Your task to perform on an android device: View the shopping cart on target.com. Image 0: 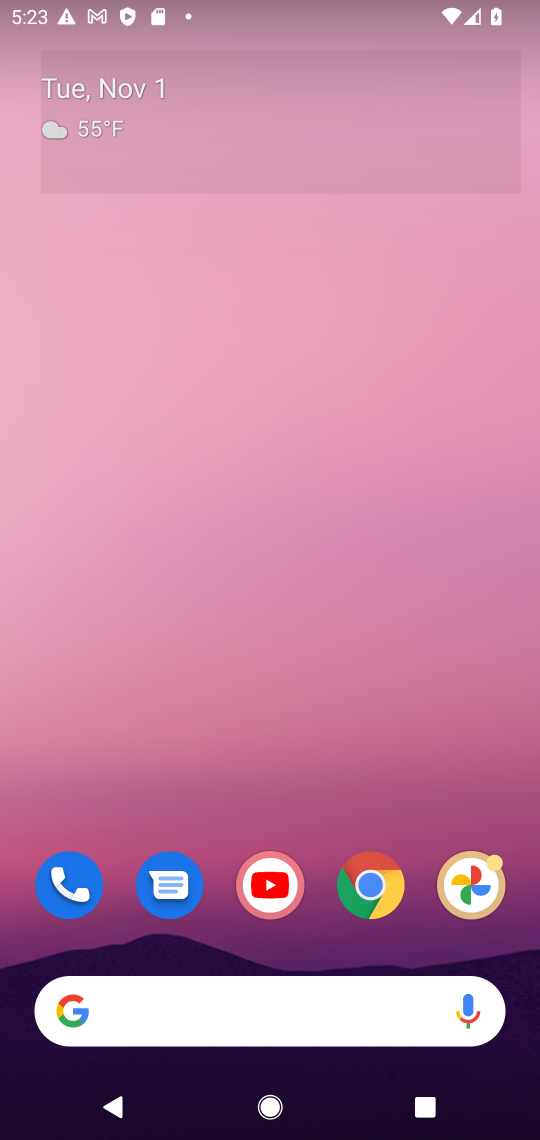
Step 0: click (368, 887)
Your task to perform on an android device: View the shopping cart on target.com. Image 1: 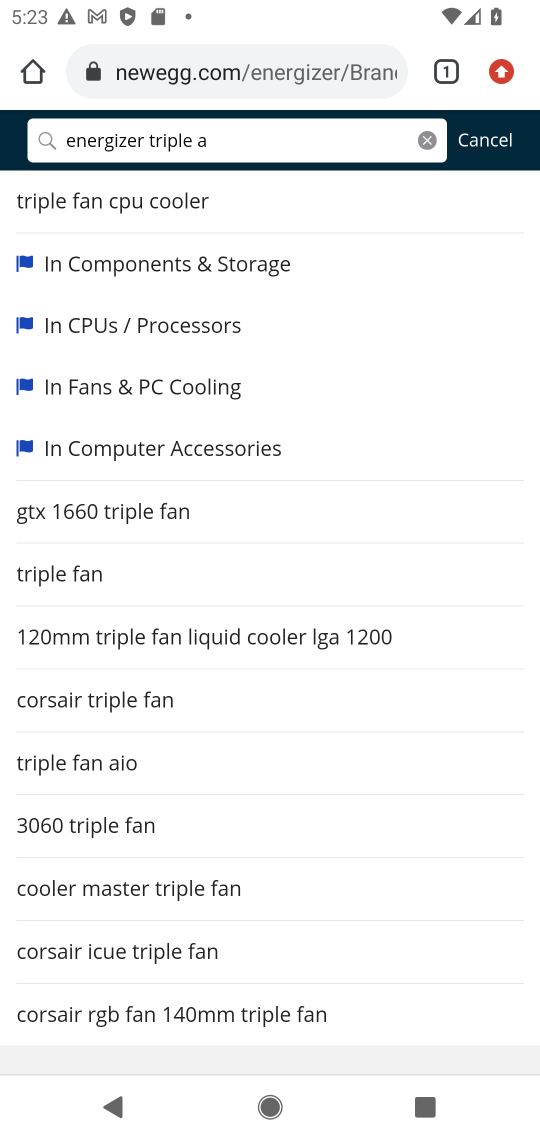
Step 1: click (234, 50)
Your task to perform on an android device: View the shopping cart on target.com. Image 2: 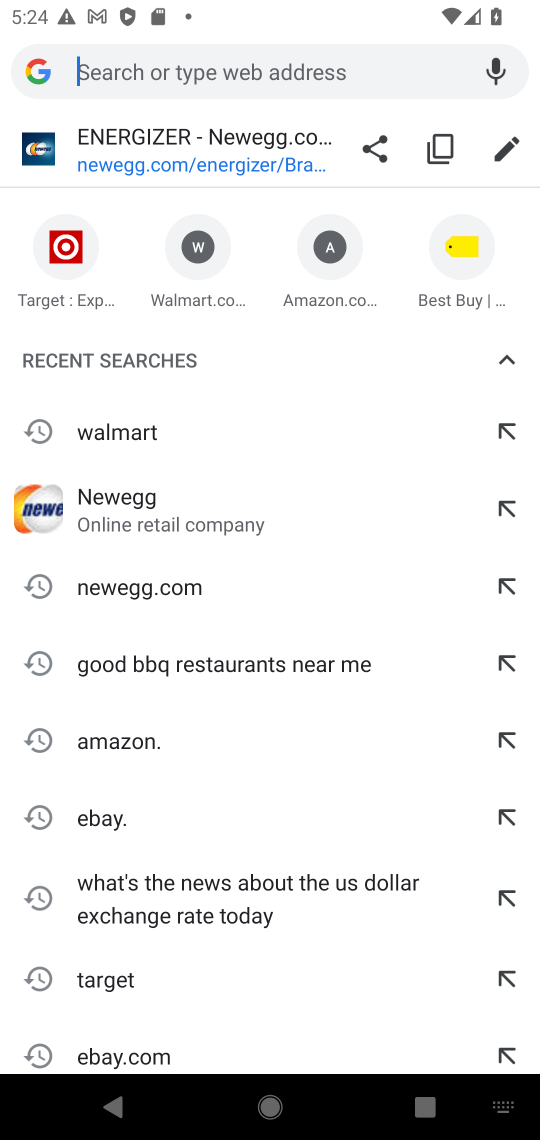
Step 2: type "target.com"
Your task to perform on an android device: View the shopping cart on target.com. Image 3: 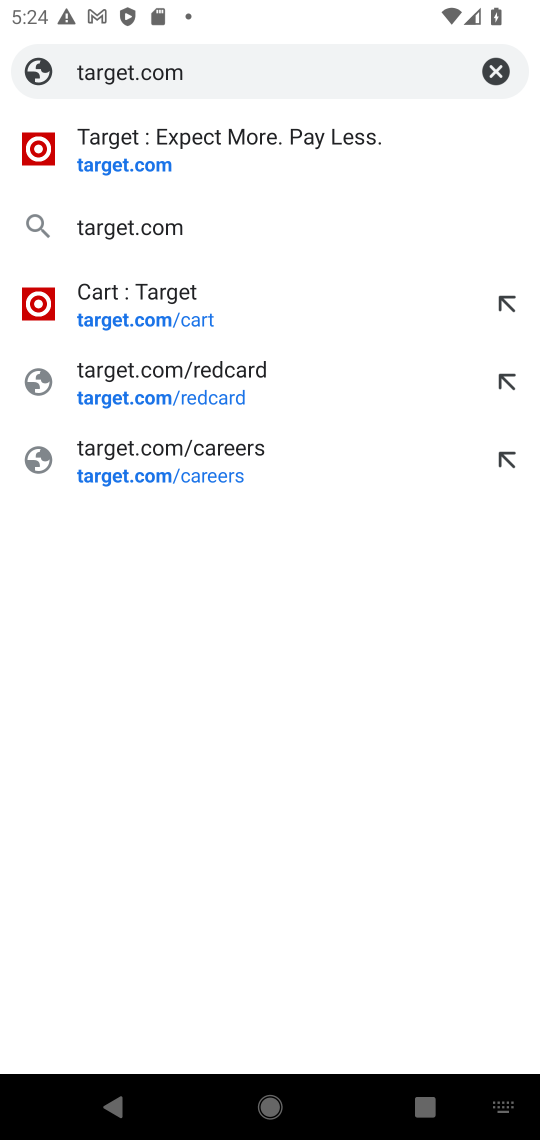
Step 3: click (115, 147)
Your task to perform on an android device: View the shopping cart on target.com. Image 4: 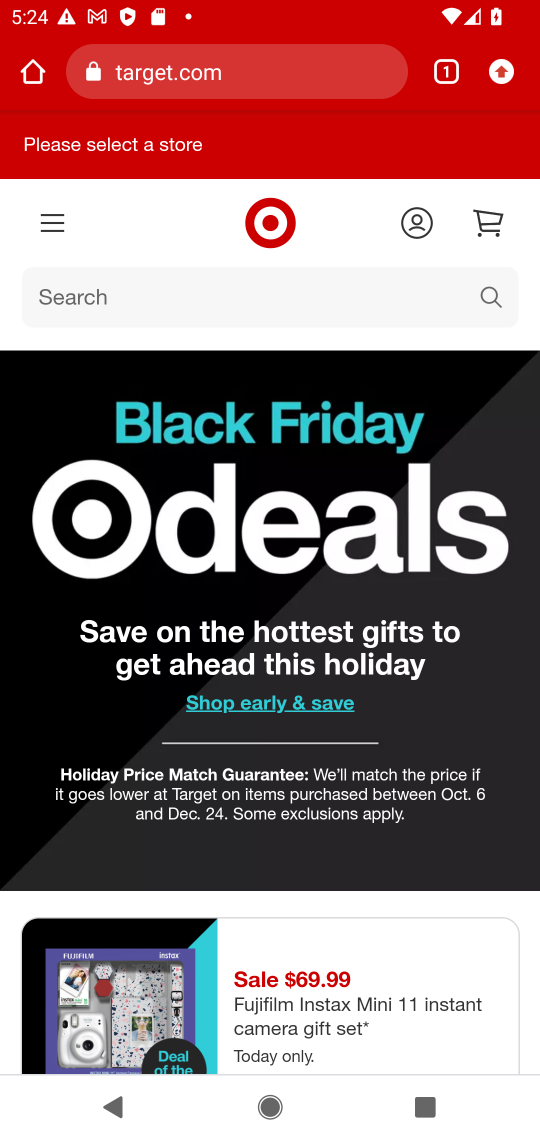
Step 4: click (487, 217)
Your task to perform on an android device: View the shopping cart on target.com. Image 5: 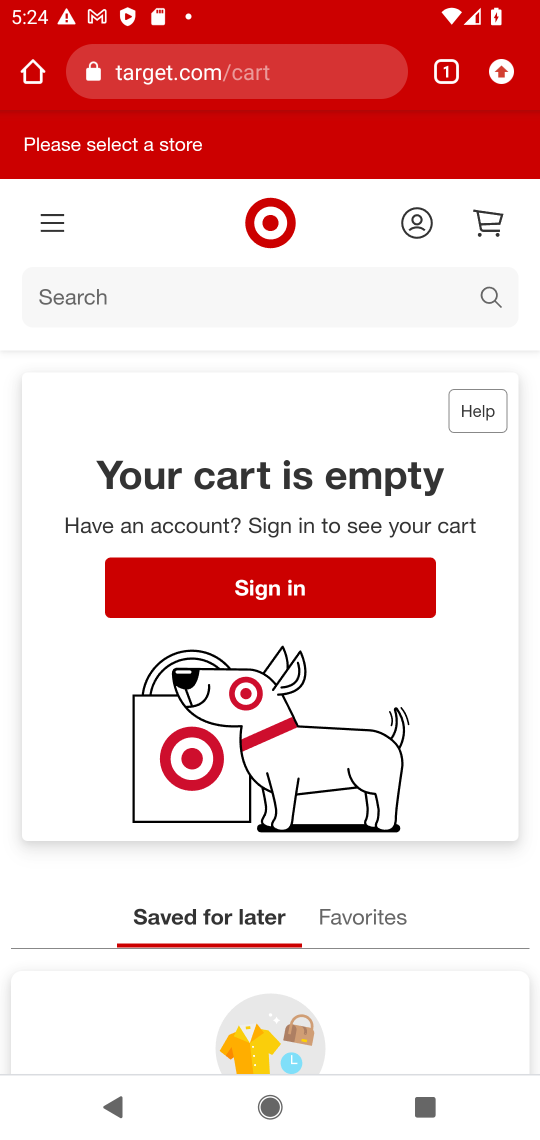
Step 5: task complete